Your task to perform on an android device: What's on my calendar tomorrow? Image 0: 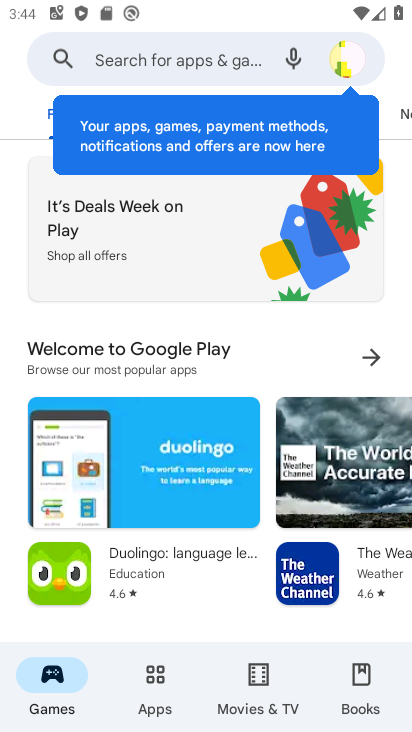
Step 0: press home button
Your task to perform on an android device: What's on my calendar tomorrow? Image 1: 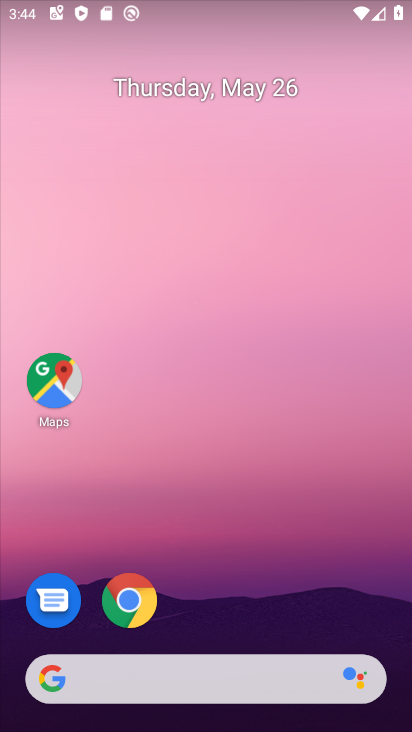
Step 1: drag from (225, 623) to (214, 8)
Your task to perform on an android device: What's on my calendar tomorrow? Image 2: 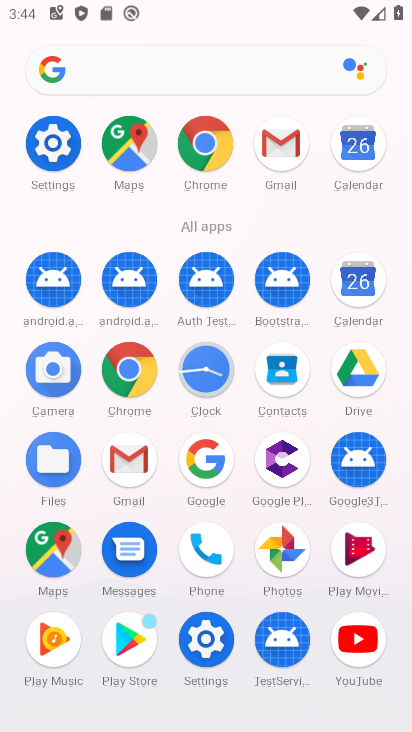
Step 2: click (372, 299)
Your task to perform on an android device: What's on my calendar tomorrow? Image 3: 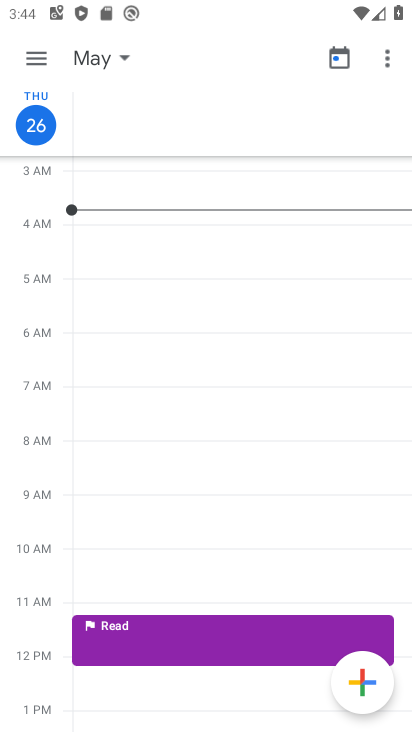
Step 3: click (28, 58)
Your task to perform on an android device: What's on my calendar tomorrow? Image 4: 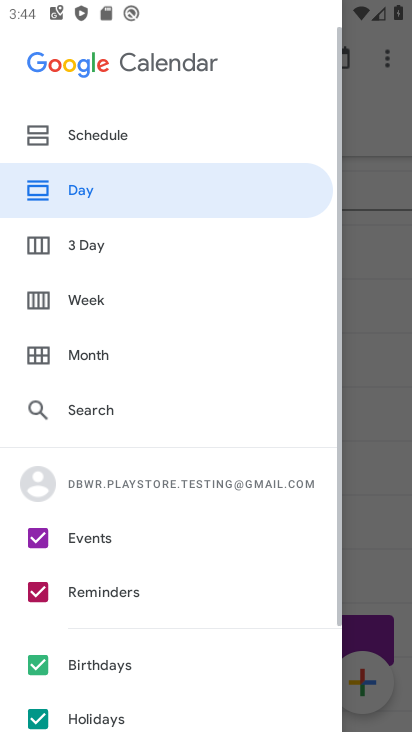
Step 4: click (112, 220)
Your task to perform on an android device: What's on my calendar tomorrow? Image 5: 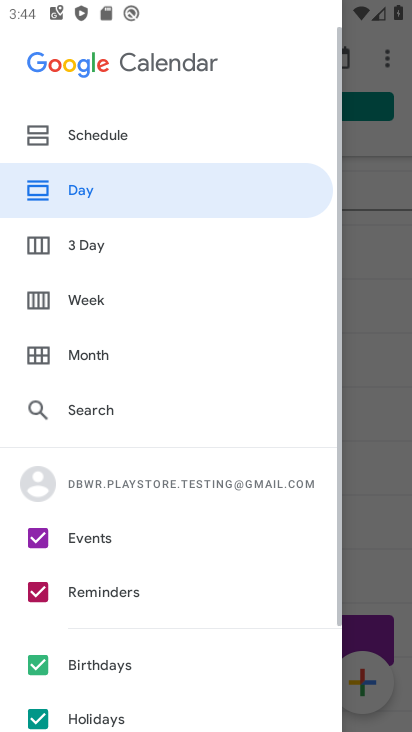
Step 5: click (92, 245)
Your task to perform on an android device: What's on my calendar tomorrow? Image 6: 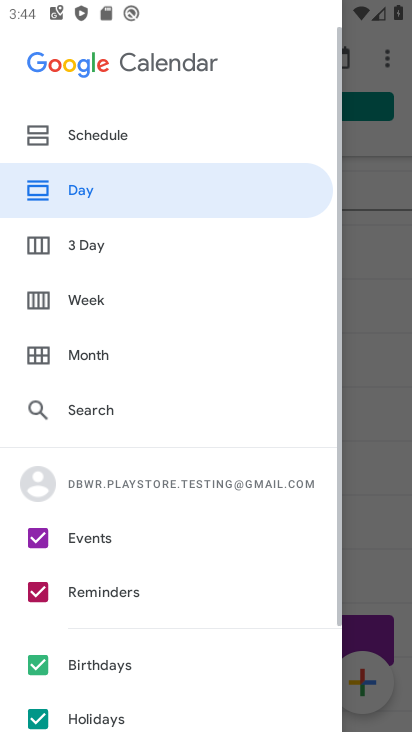
Step 6: click (92, 245)
Your task to perform on an android device: What's on my calendar tomorrow? Image 7: 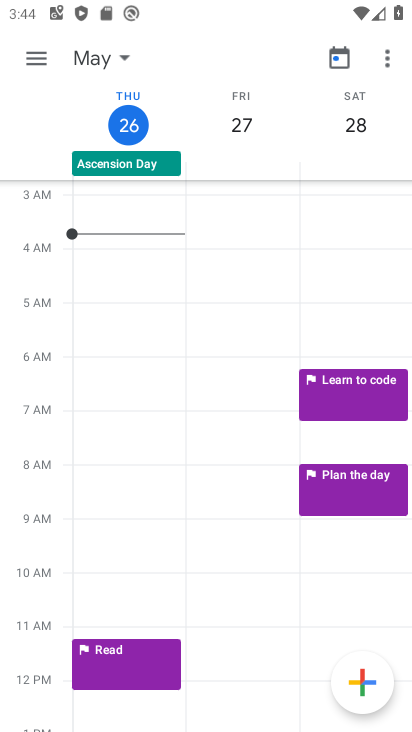
Step 7: task complete